Your task to perform on an android device: turn on improve location accuracy Image 0: 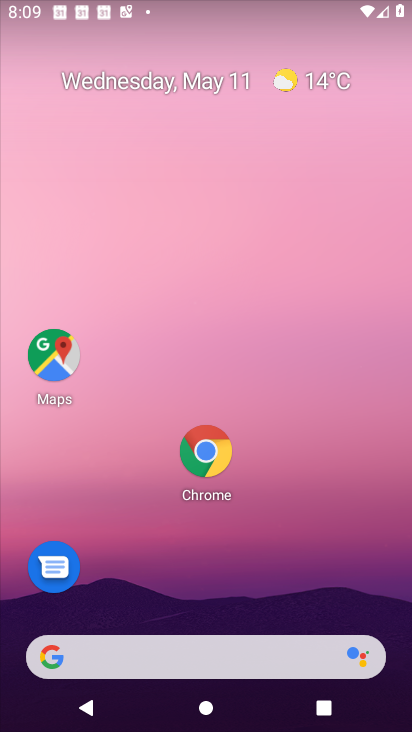
Step 0: press home button
Your task to perform on an android device: turn on improve location accuracy Image 1: 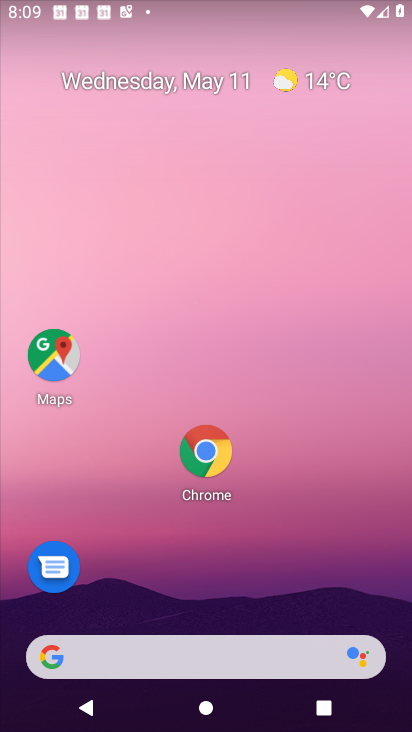
Step 1: drag from (175, 651) to (274, 173)
Your task to perform on an android device: turn on improve location accuracy Image 2: 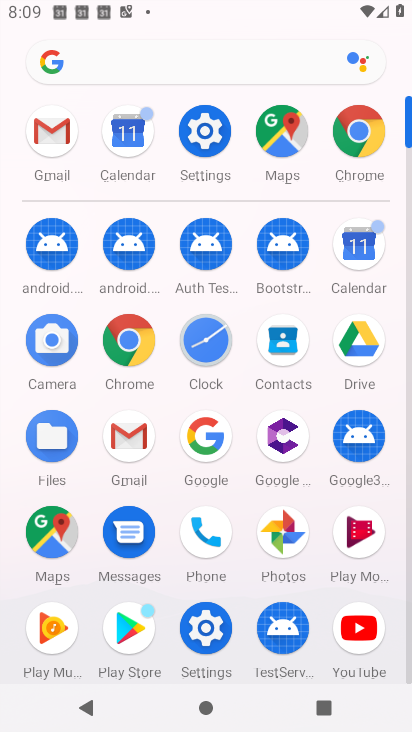
Step 2: click (210, 134)
Your task to perform on an android device: turn on improve location accuracy Image 3: 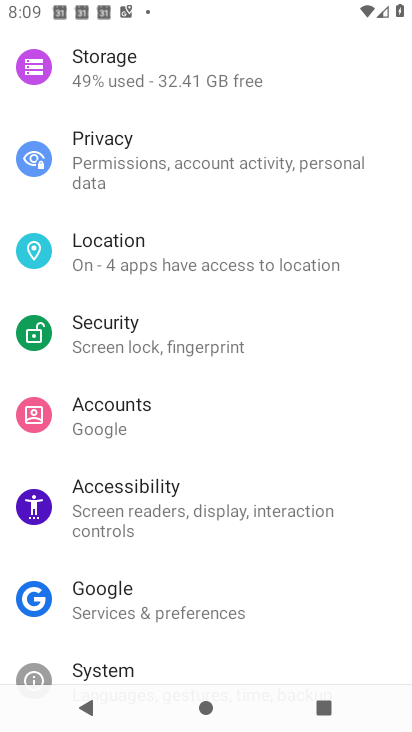
Step 3: click (179, 256)
Your task to perform on an android device: turn on improve location accuracy Image 4: 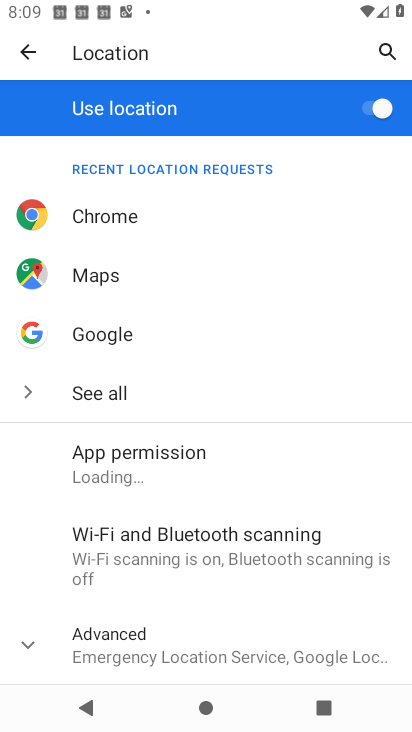
Step 4: click (129, 645)
Your task to perform on an android device: turn on improve location accuracy Image 5: 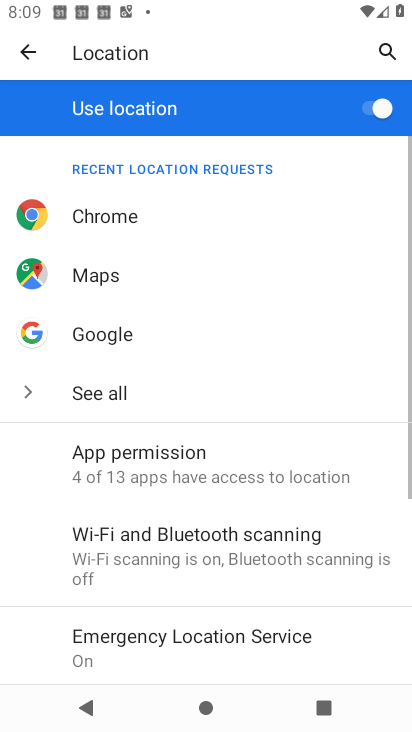
Step 5: drag from (206, 600) to (296, 219)
Your task to perform on an android device: turn on improve location accuracy Image 6: 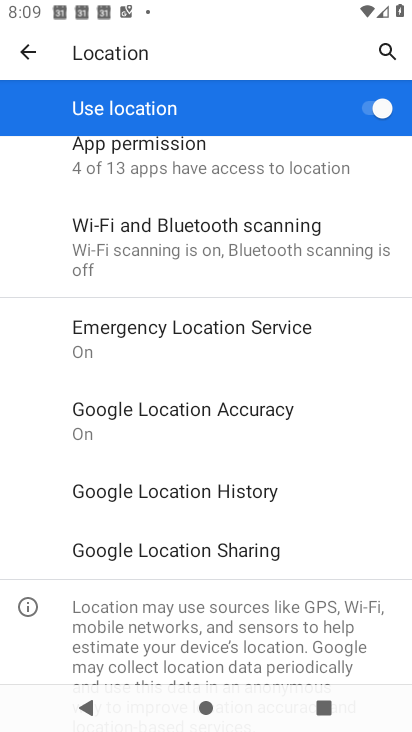
Step 6: click (191, 415)
Your task to perform on an android device: turn on improve location accuracy Image 7: 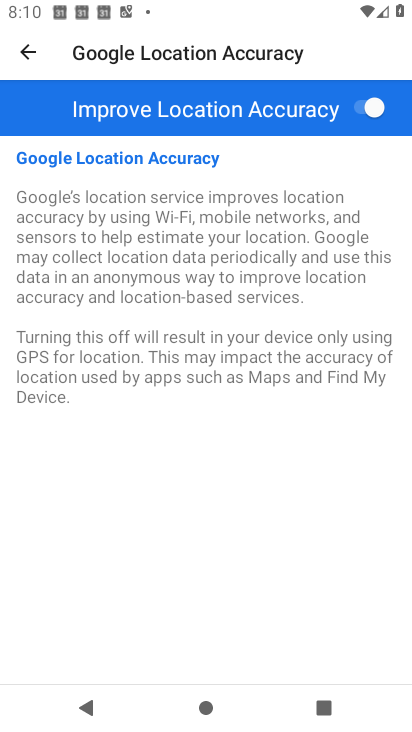
Step 7: task complete